Your task to perform on an android device: Open calendar and show me the first week of next month Image 0: 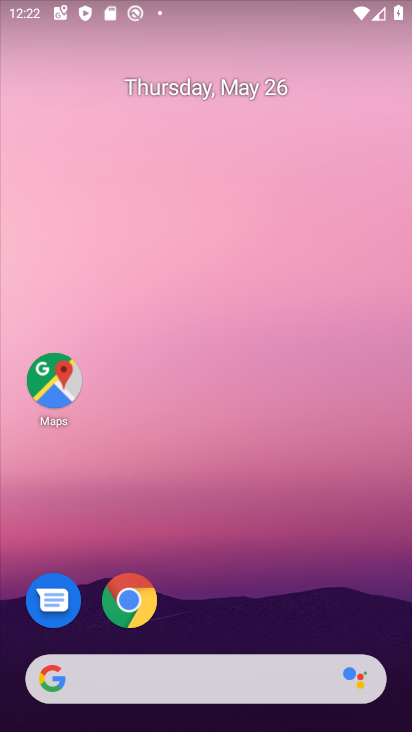
Step 0: click (287, 473)
Your task to perform on an android device: Open calendar and show me the first week of next month Image 1: 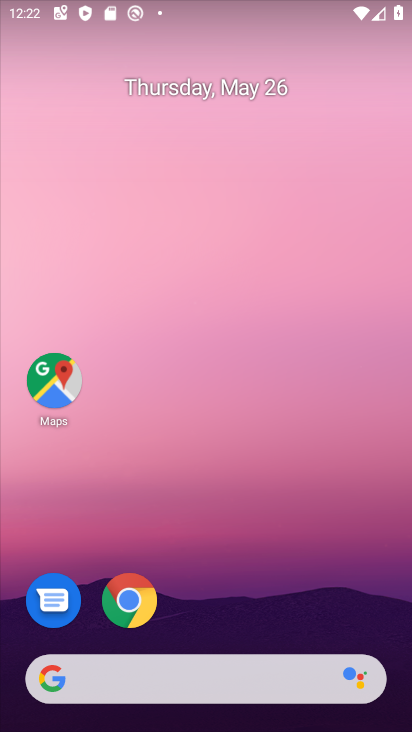
Step 1: drag from (279, 550) to (284, 57)
Your task to perform on an android device: Open calendar and show me the first week of next month Image 2: 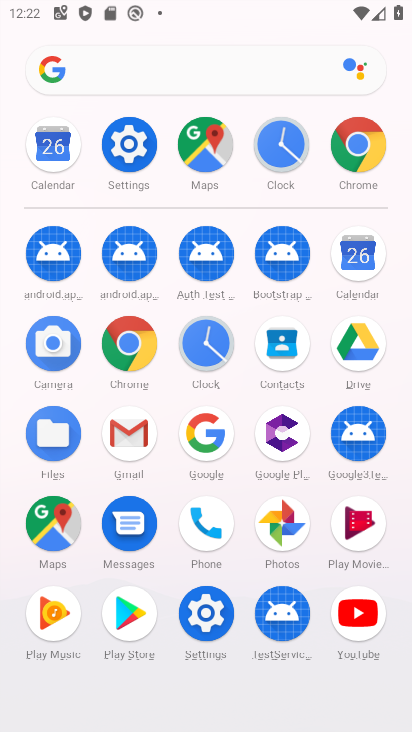
Step 2: click (351, 254)
Your task to perform on an android device: Open calendar and show me the first week of next month Image 3: 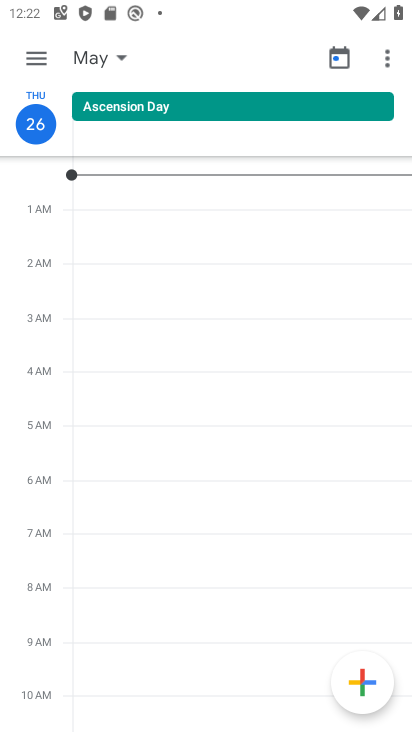
Step 3: click (81, 63)
Your task to perform on an android device: Open calendar and show me the first week of next month Image 4: 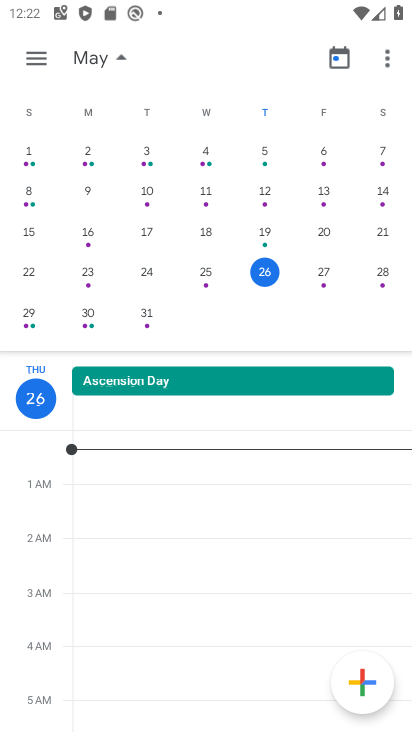
Step 4: drag from (377, 212) to (3, 237)
Your task to perform on an android device: Open calendar and show me the first week of next month Image 5: 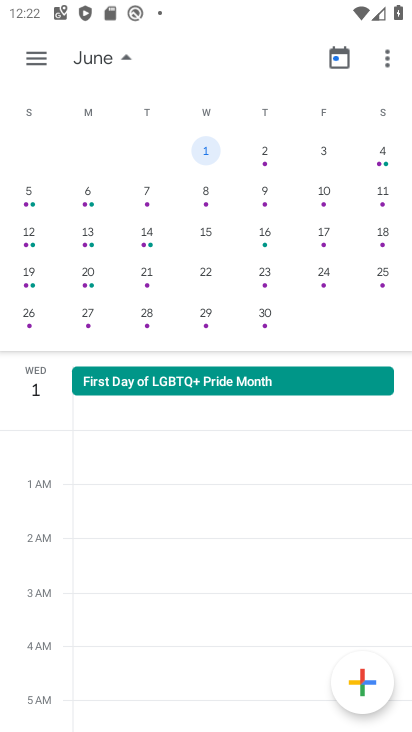
Step 5: click (27, 195)
Your task to perform on an android device: Open calendar and show me the first week of next month Image 6: 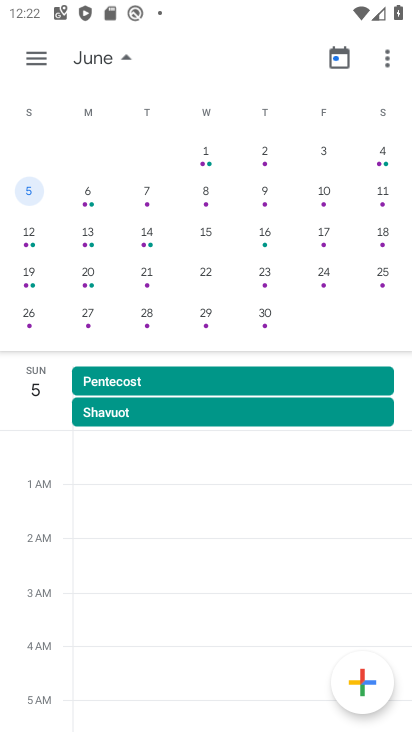
Step 6: click (37, 59)
Your task to perform on an android device: Open calendar and show me the first week of next month Image 7: 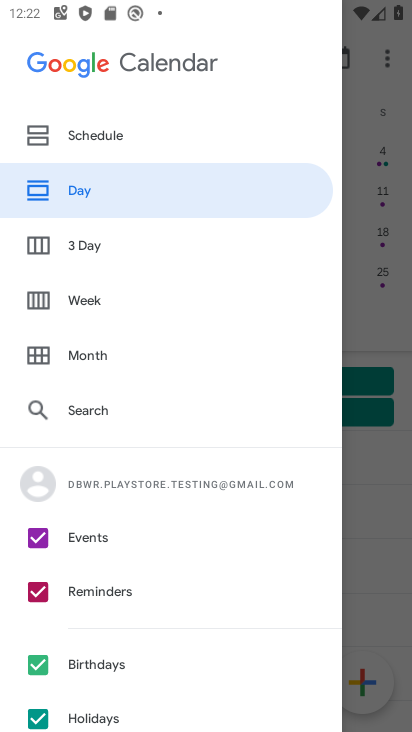
Step 7: click (91, 295)
Your task to perform on an android device: Open calendar and show me the first week of next month Image 8: 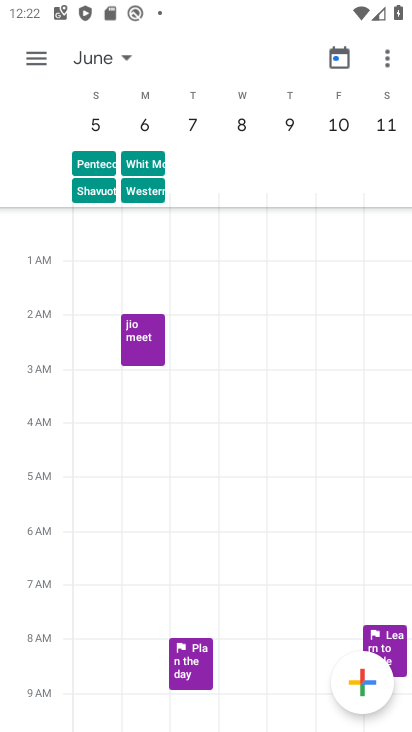
Step 8: task complete